Your task to perform on an android device: toggle wifi Image 0: 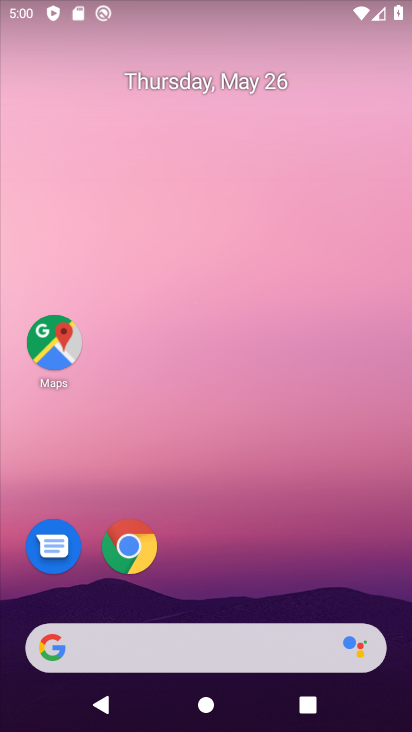
Step 0: drag from (148, 282) to (103, 85)
Your task to perform on an android device: toggle wifi Image 1: 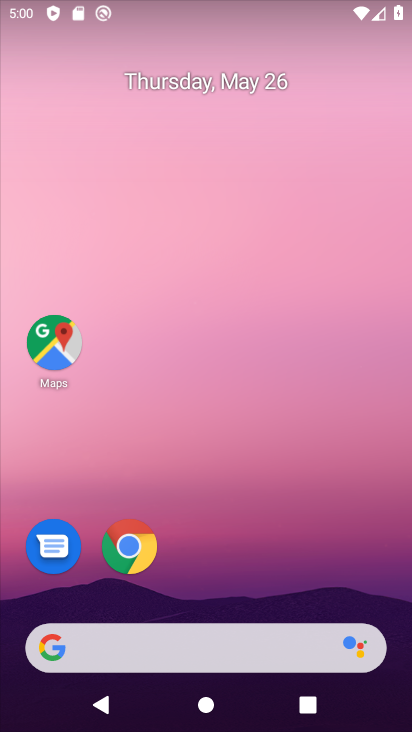
Step 1: drag from (253, 593) to (231, 100)
Your task to perform on an android device: toggle wifi Image 2: 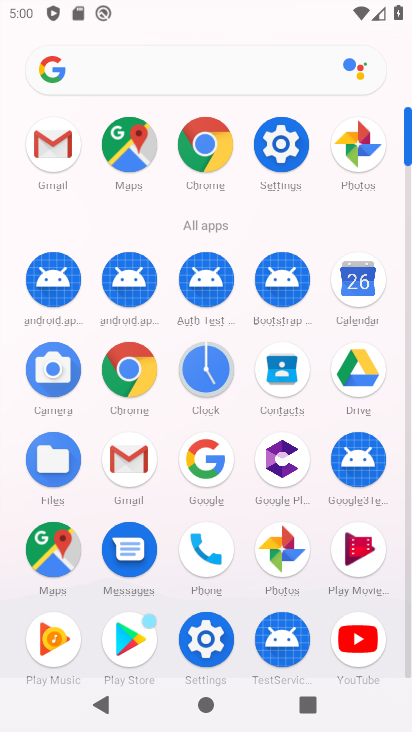
Step 2: click (277, 158)
Your task to perform on an android device: toggle wifi Image 3: 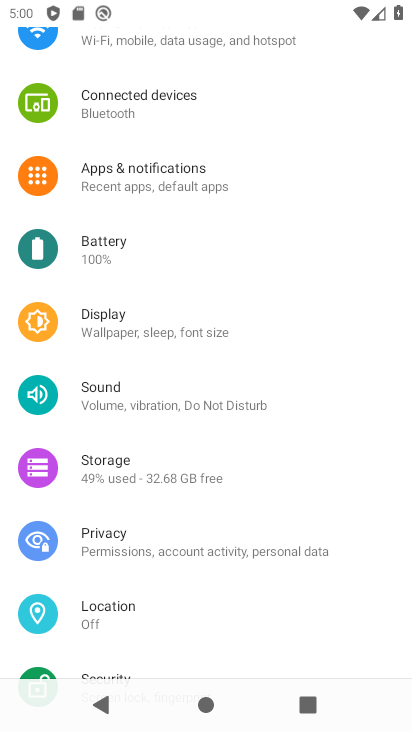
Step 3: drag from (243, 130) to (99, 711)
Your task to perform on an android device: toggle wifi Image 4: 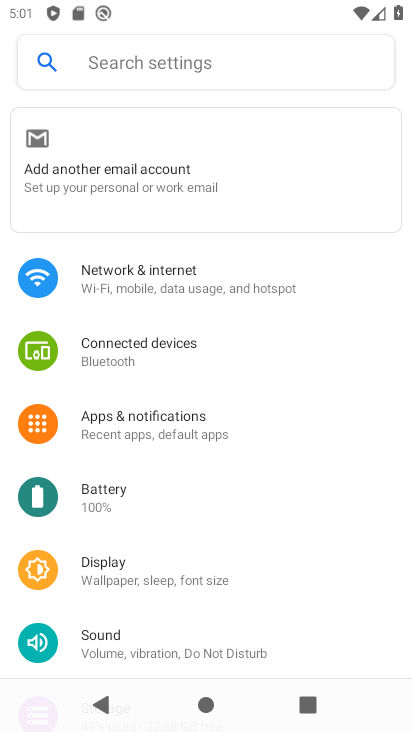
Step 4: click (238, 274)
Your task to perform on an android device: toggle wifi Image 5: 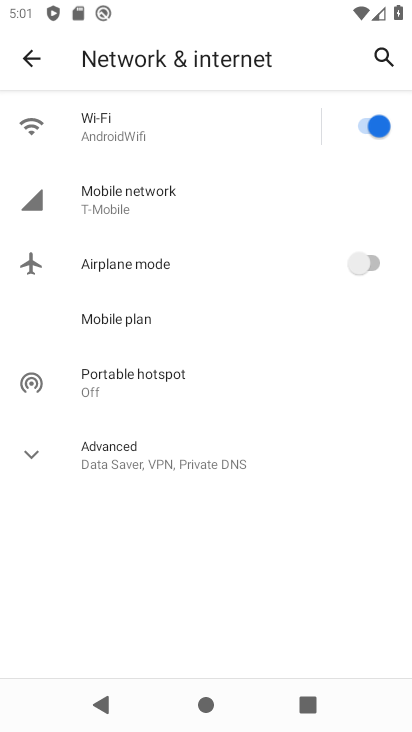
Step 5: click (373, 129)
Your task to perform on an android device: toggle wifi Image 6: 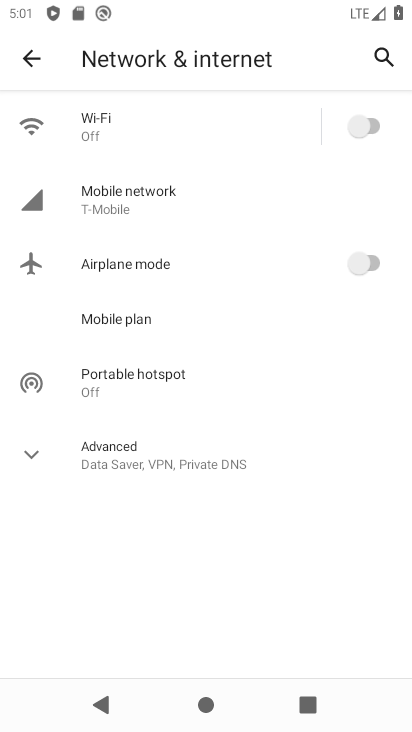
Step 6: task complete